Your task to perform on an android device: turn on airplane mode Image 0: 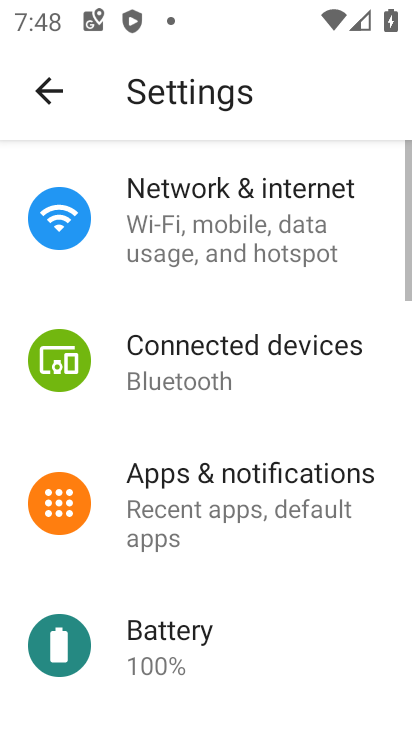
Step 0: click (291, 252)
Your task to perform on an android device: turn on airplane mode Image 1: 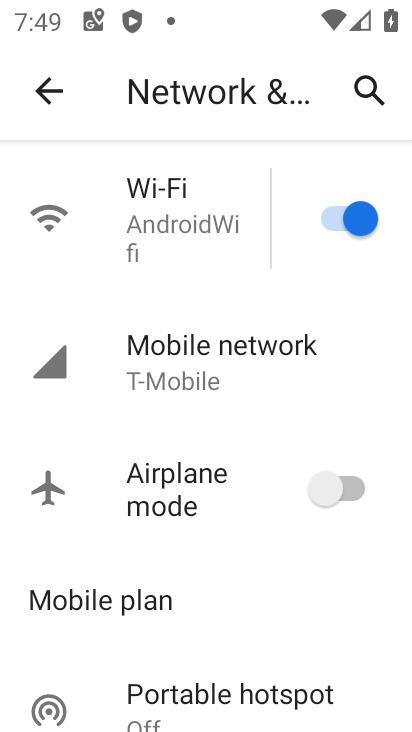
Step 1: click (310, 487)
Your task to perform on an android device: turn on airplane mode Image 2: 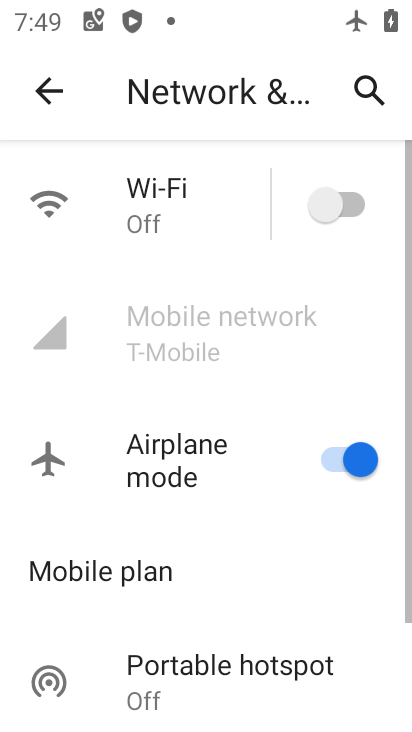
Step 2: task complete